Your task to perform on an android device: Open calendar and show me the fourth week of next month Image 0: 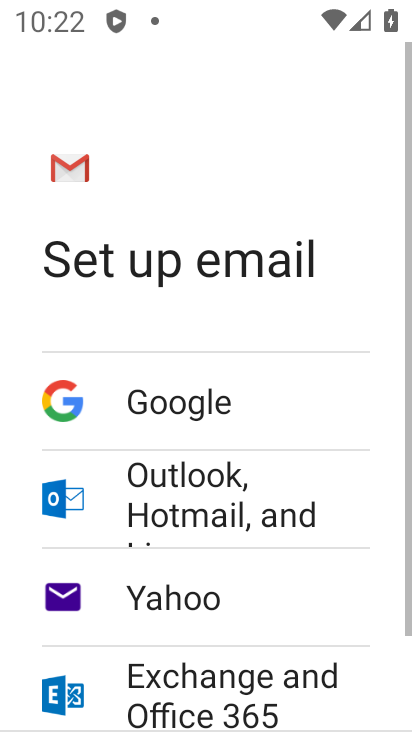
Step 0: press home button
Your task to perform on an android device: Open calendar and show me the fourth week of next month Image 1: 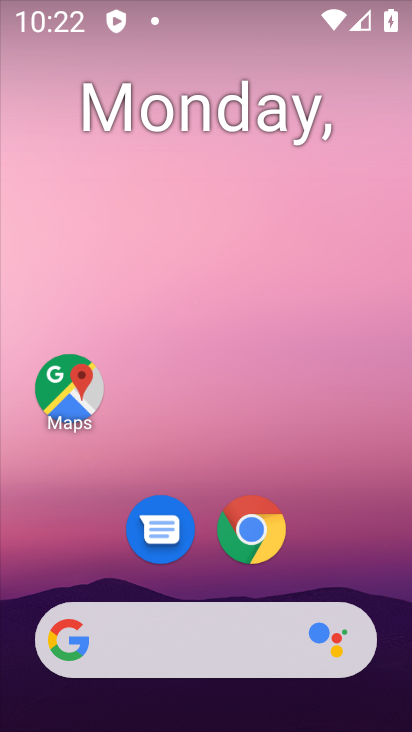
Step 1: drag from (308, 542) to (186, 214)
Your task to perform on an android device: Open calendar and show me the fourth week of next month Image 2: 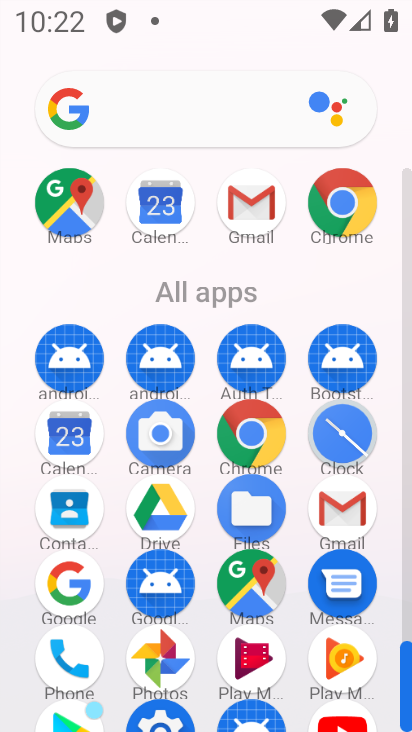
Step 2: click (65, 439)
Your task to perform on an android device: Open calendar and show me the fourth week of next month Image 3: 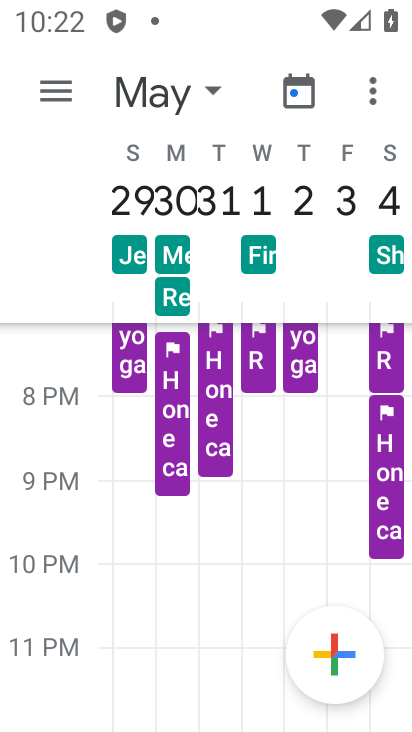
Step 3: click (211, 83)
Your task to perform on an android device: Open calendar and show me the fourth week of next month Image 4: 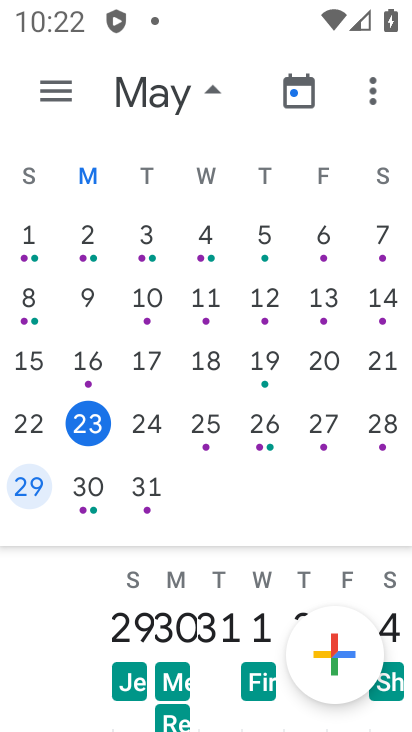
Step 4: drag from (377, 313) to (15, 274)
Your task to perform on an android device: Open calendar and show me the fourth week of next month Image 5: 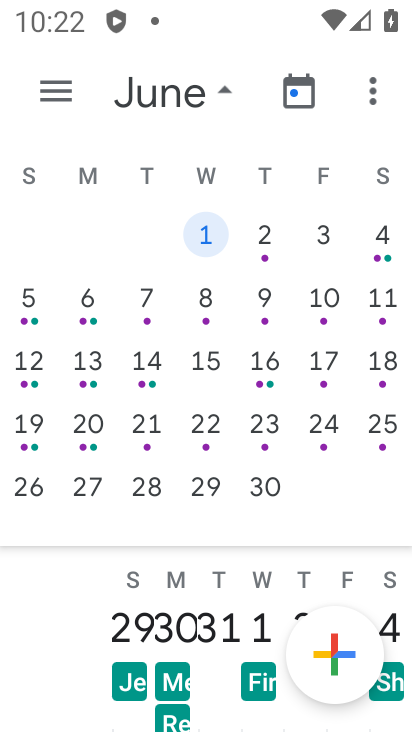
Step 5: click (205, 422)
Your task to perform on an android device: Open calendar and show me the fourth week of next month Image 6: 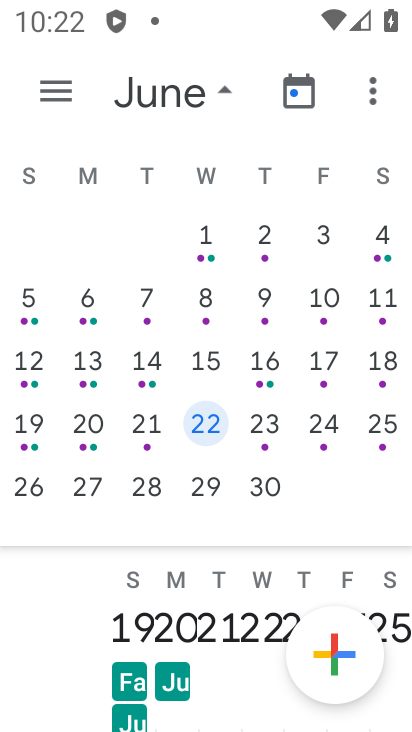
Step 6: task complete